Your task to perform on an android device: Open calendar and show me the third week of next month Image 0: 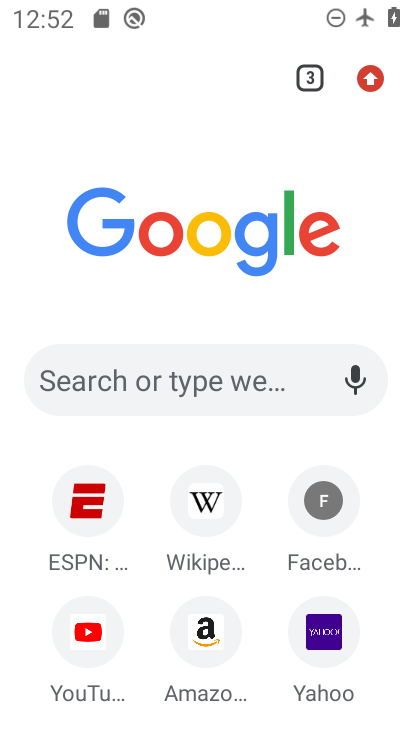
Step 0: press home button
Your task to perform on an android device: Open calendar and show me the third week of next month Image 1: 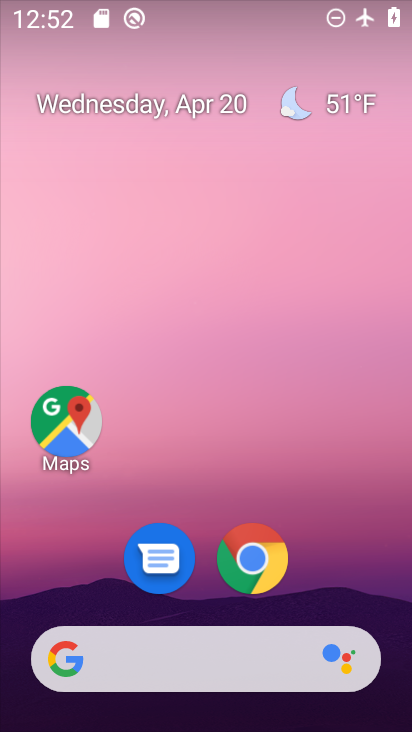
Step 1: drag from (366, 585) to (312, 153)
Your task to perform on an android device: Open calendar and show me the third week of next month Image 2: 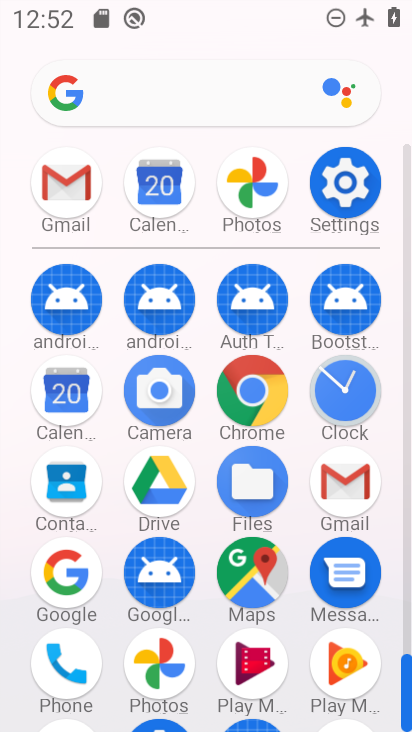
Step 2: drag from (408, 644) to (408, 606)
Your task to perform on an android device: Open calendar and show me the third week of next month Image 3: 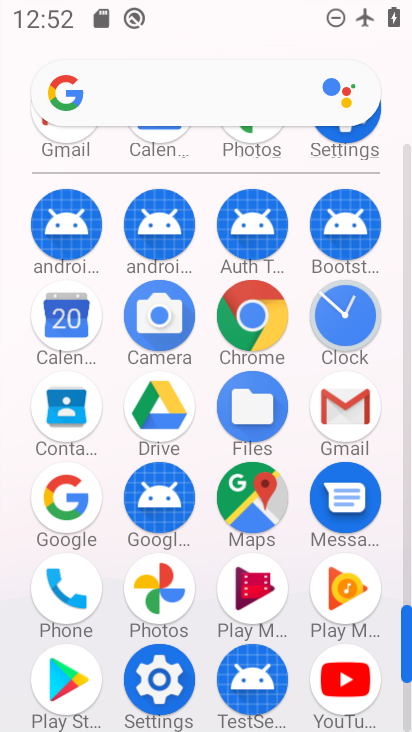
Step 3: click (66, 325)
Your task to perform on an android device: Open calendar and show me the third week of next month Image 4: 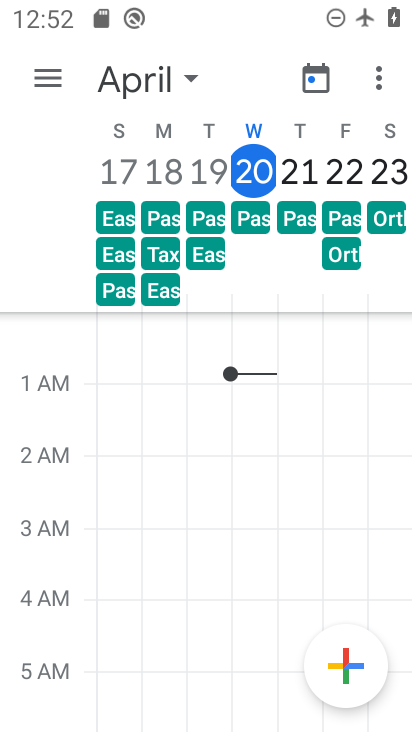
Step 4: click (180, 78)
Your task to perform on an android device: Open calendar and show me the third week of next month Image 5: 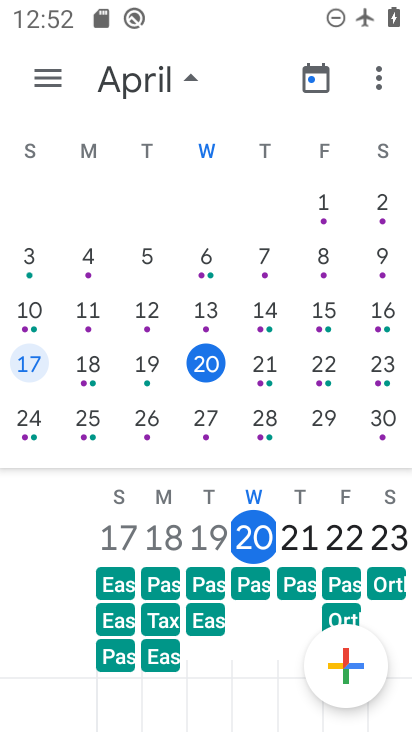
Step 5: drag from (378, 322) to (34, 268)
Your task to perform on an android device: Open calendar and show me the third week of next month Image 6: 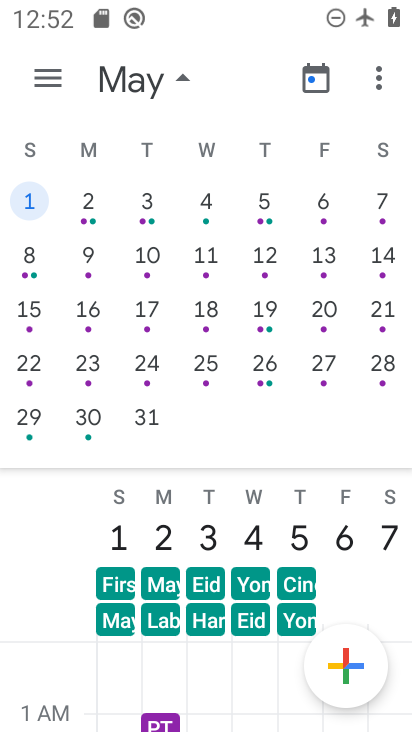
Step 6: click (29, 309)
Your task to perform on an android device: Open calendar and show me the third week of next month Image 7: 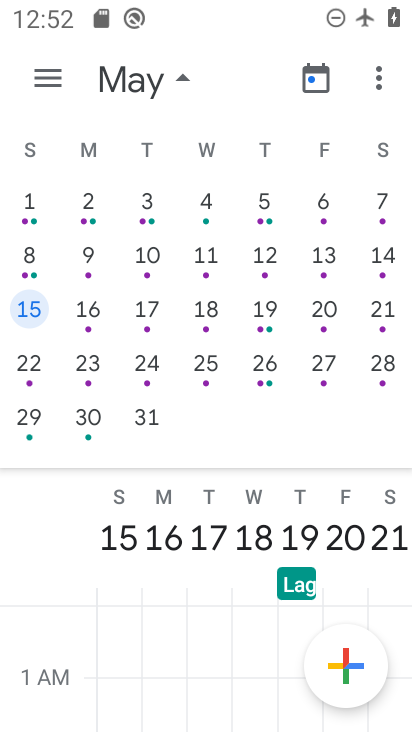
Step 7: task complete